Your task to perform on an android device: Go to Google Image 0: 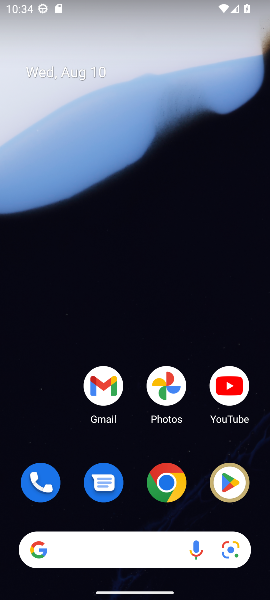
Step 0: drag from (151, 337) to (143, 265)
Your task to perform on an android device: Go to Google Image 1: 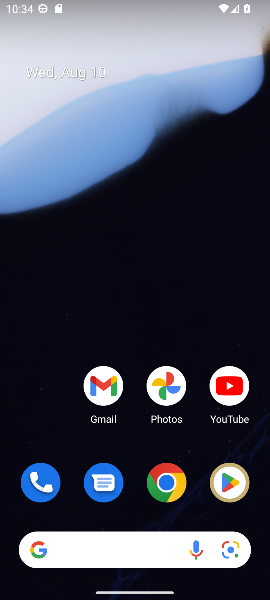
Step 1: click (157, 547)
Your task to perform on an android device: Go to Google Image 2: 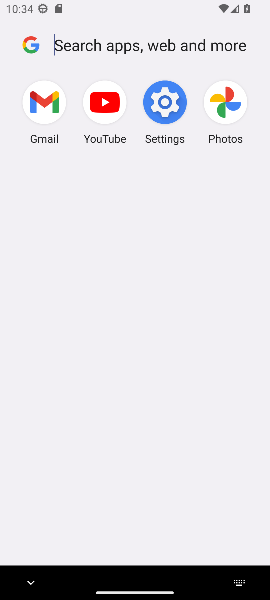
Step 2: click (157, 547)
Your task to perform on an android device: Go to Google Image 3: 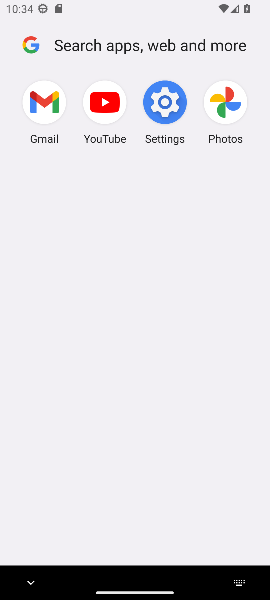
Step 3: task complete